Your task to perform on an android device: Search for vegetarian restaurants on Maps Image 0: 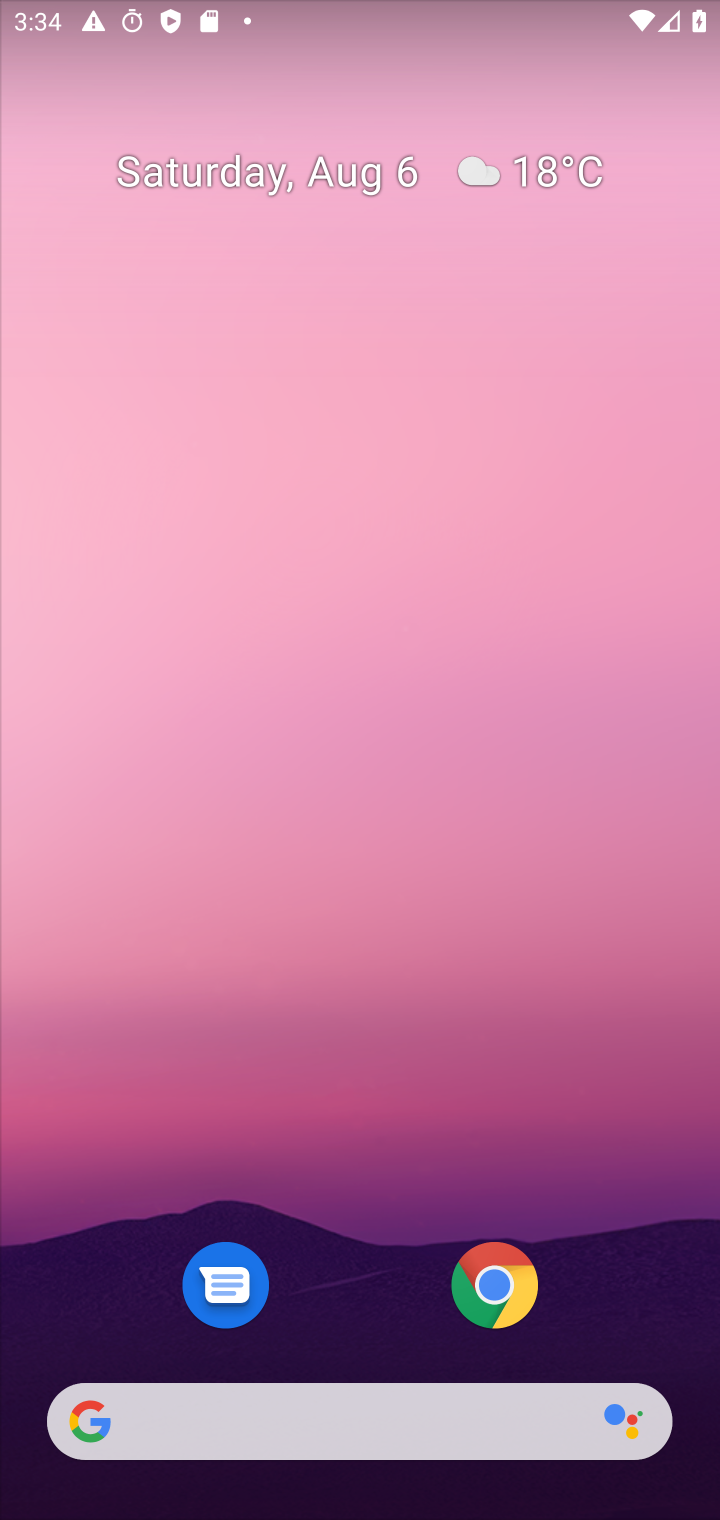
Step 0: press home button
Your task to perform on an android device: Search for vegetarian restaurants on Maps Image 1: 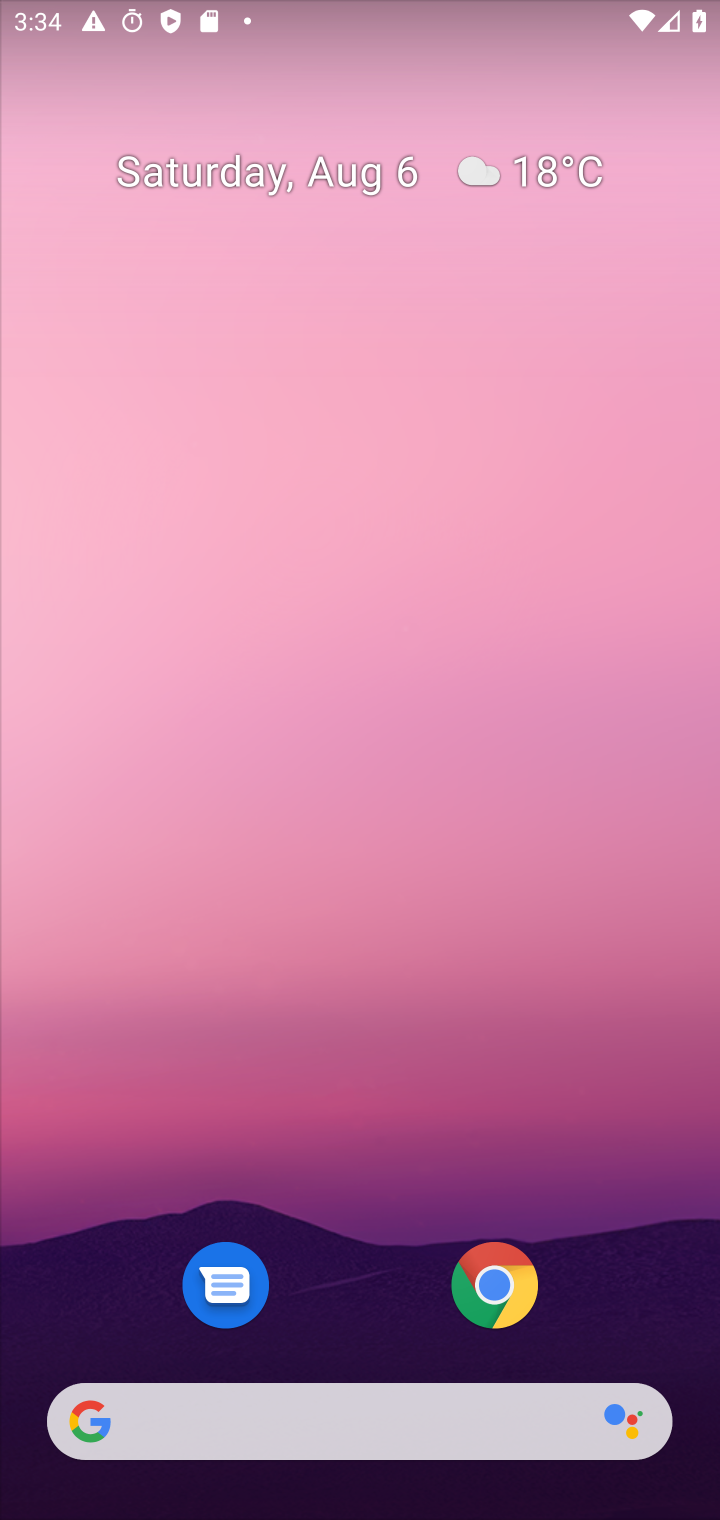
Step 1: drag from (368, 1167) to (359, 232)
Your task to perform on an android device: Search for vegetarian restaurants on Maps Image 2: 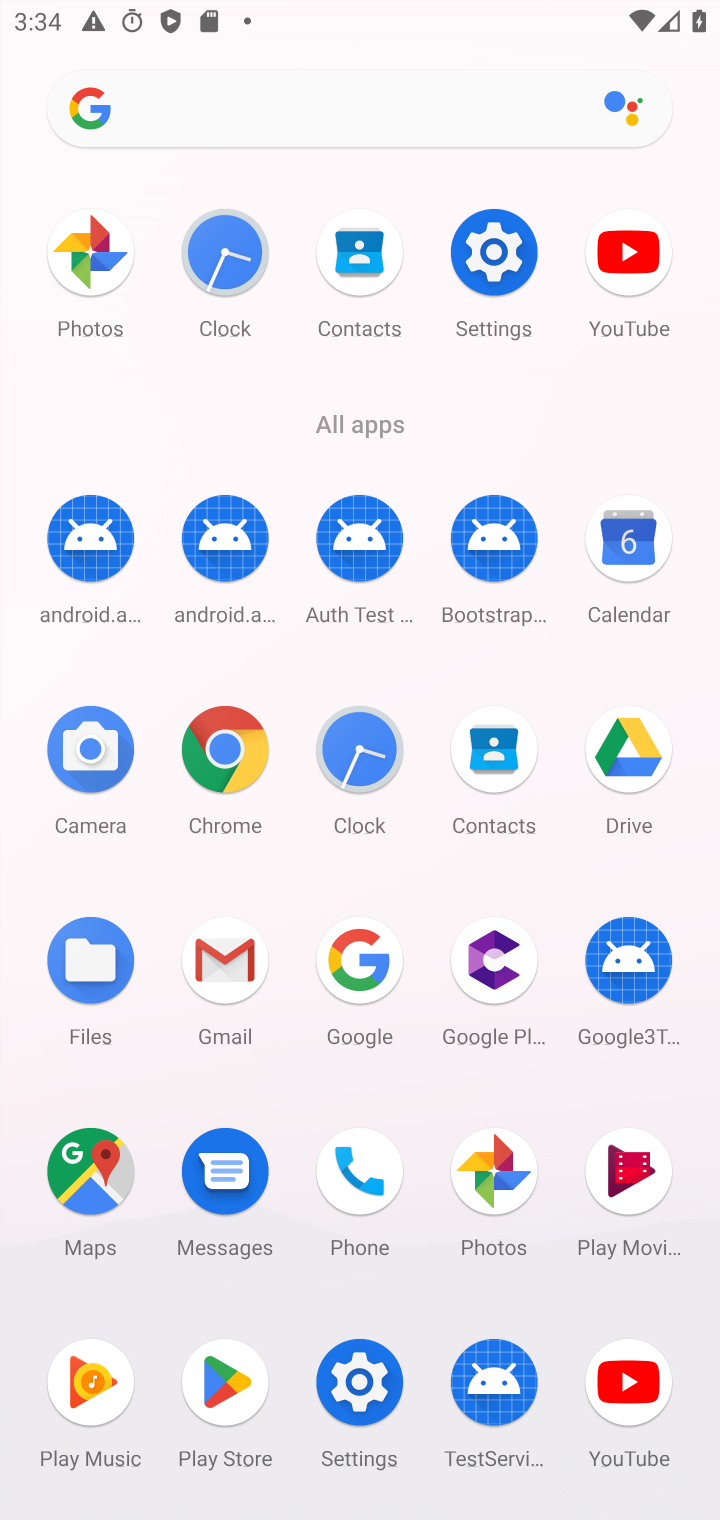
Step 2: click (84, 1161)
Your task to perform on an android device: Search for vegetarian restaurants on Maps Image 3: 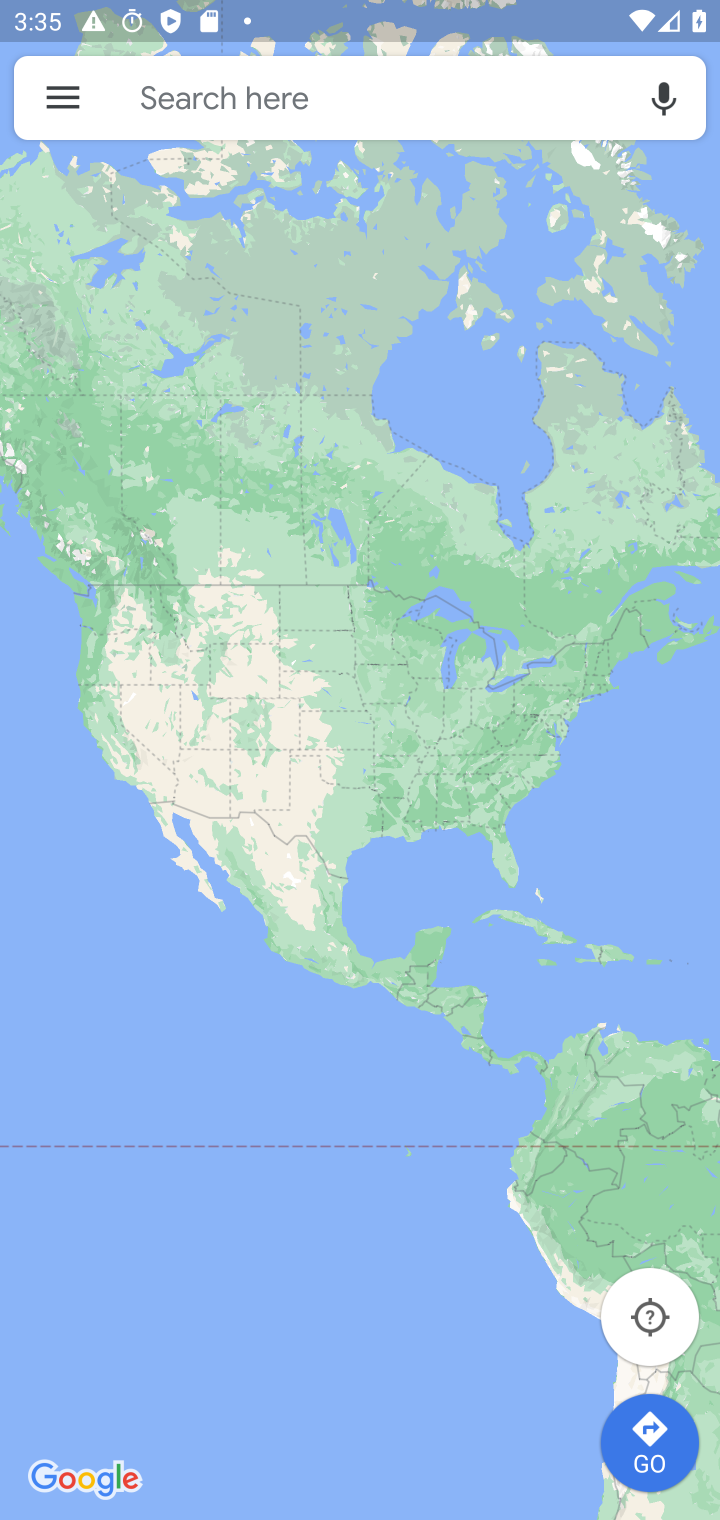
Step 3: click (209, 69)
Your task to perform on an android device: Search for vegetarian restaurants on Maps Image 4: 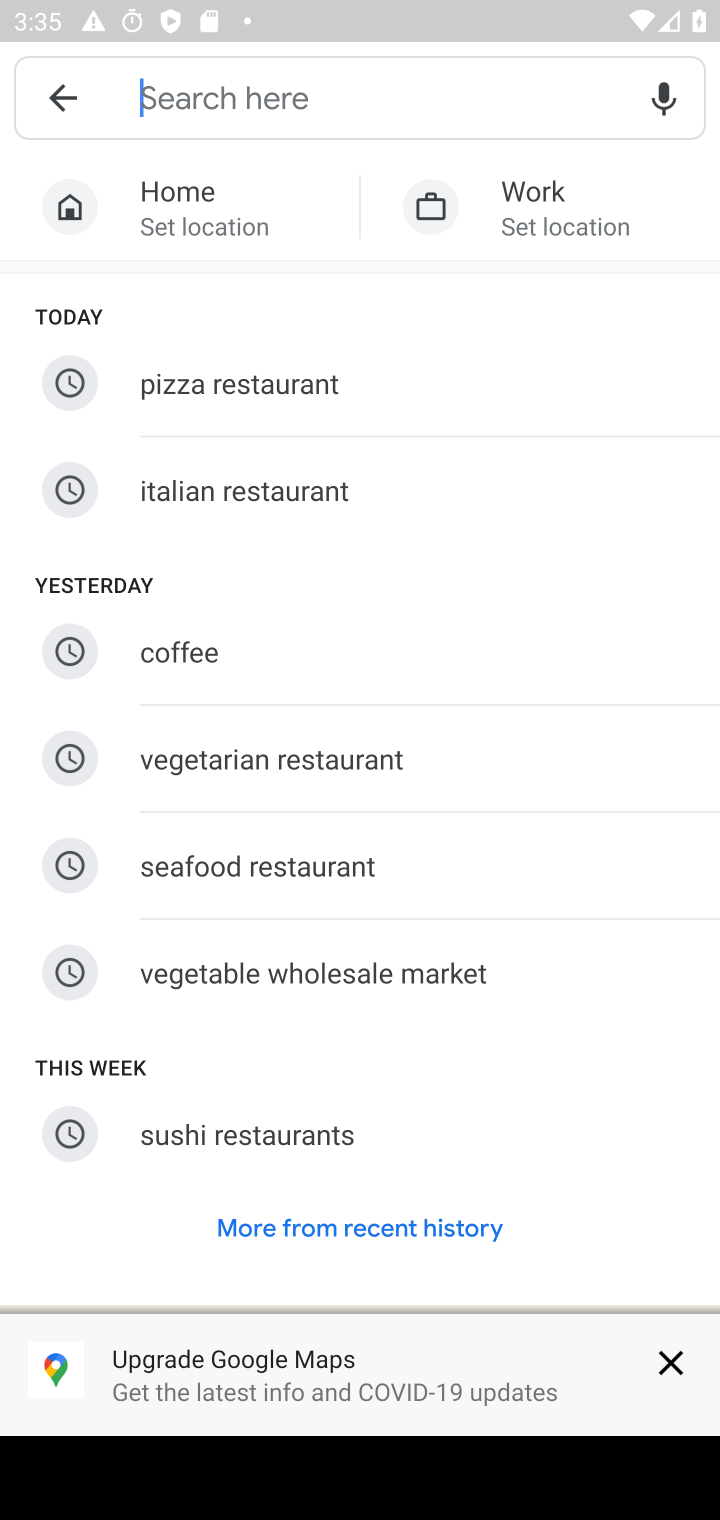
Step 4: click (233, 762)
Your task to perform on an android device: Search for vegetarian restaurants on Maps Image 5: 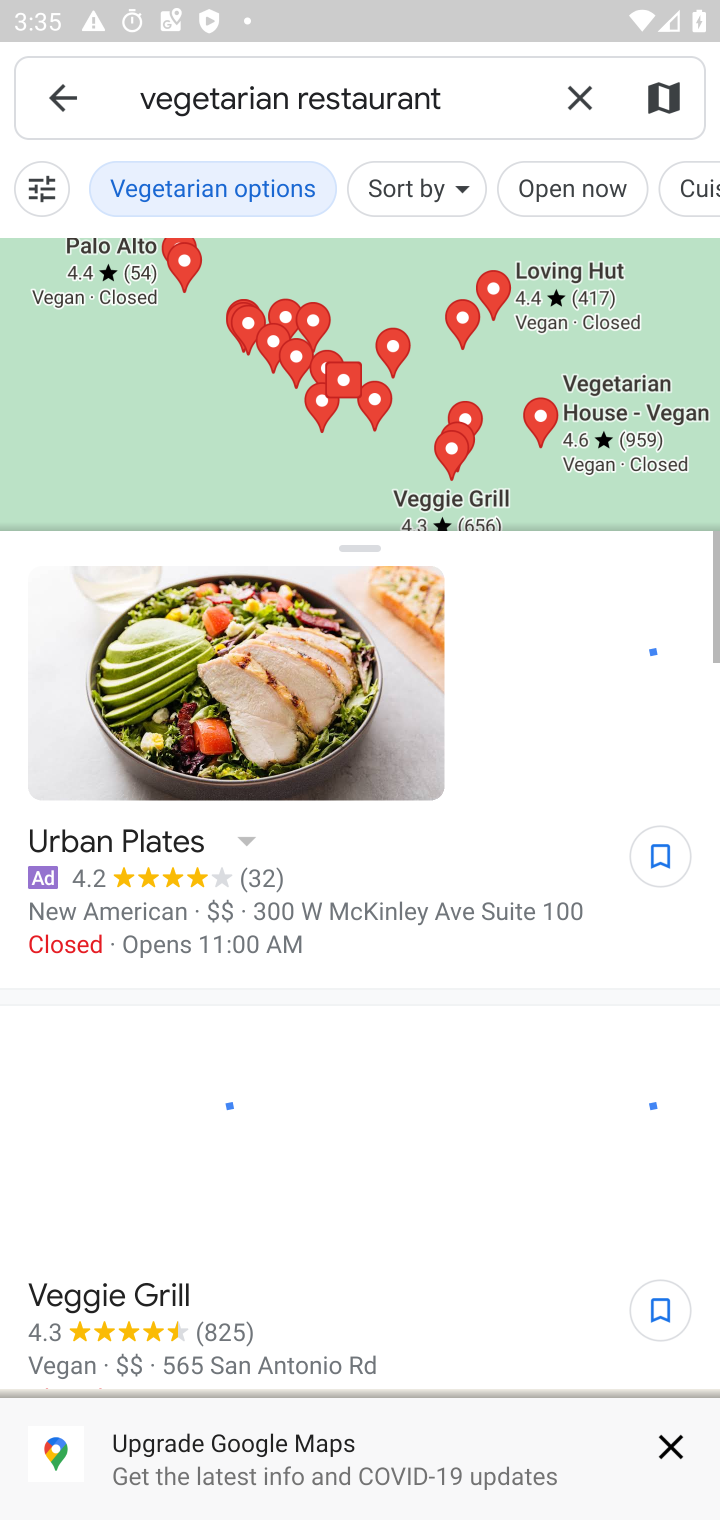
Step 5: click (334, 308)
Your task to perform on an android device: Search for vegetarian restaurants on Maps Image 6: 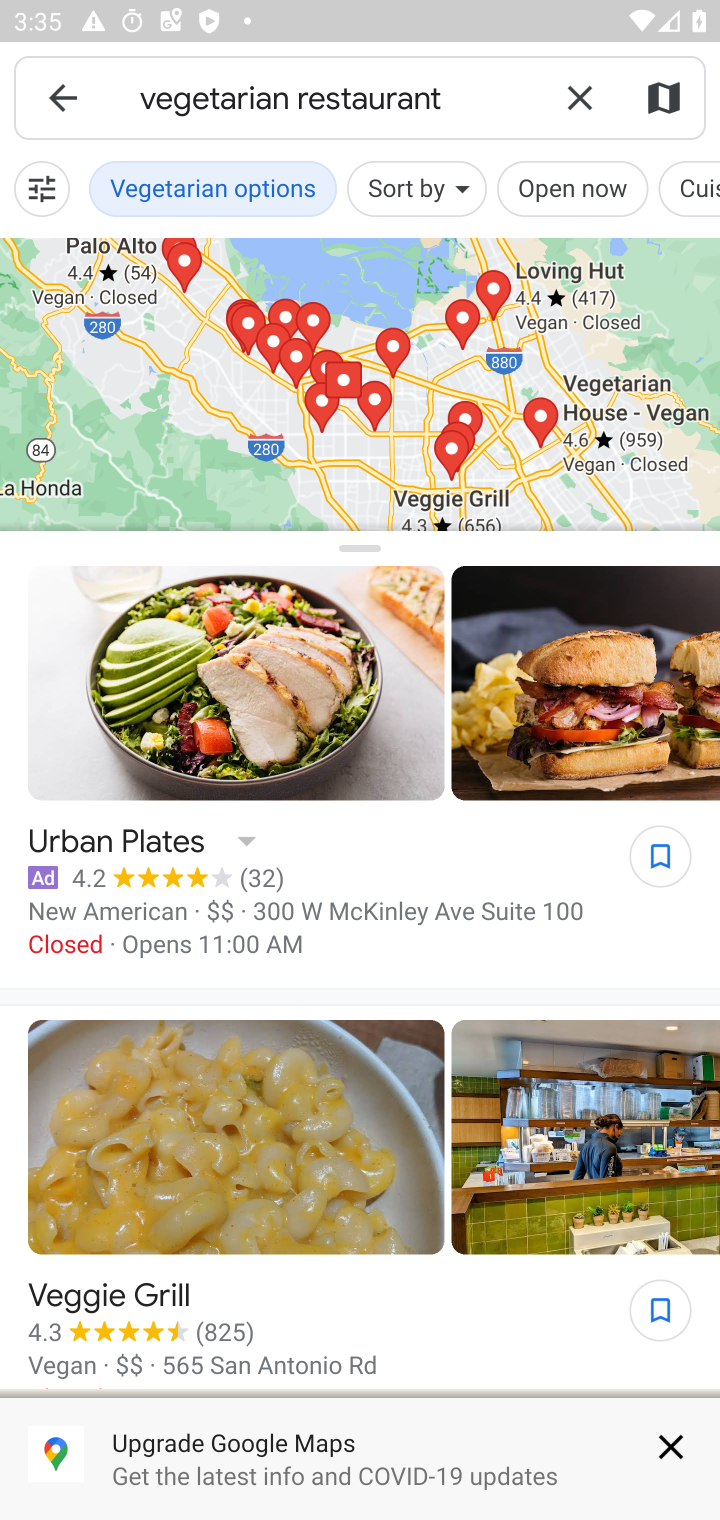
Step 6: task complete